Your task to perform on an android device: Clear the shopping cart on newegg. Add "usb-a" to the cart on newegg, then select checkout. Image 0: 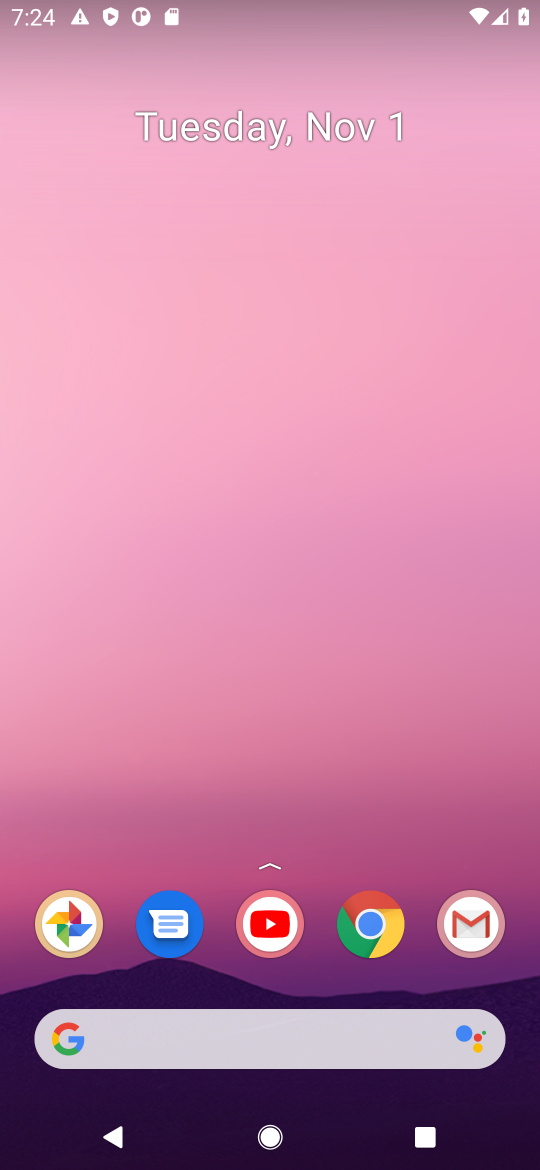
Step 0: click (118, 1033)
Your task to perform on an android device: Clear the shopping cart on newegg. Add "usb-a" to the cart on newegg, then select checkout. Image 1: 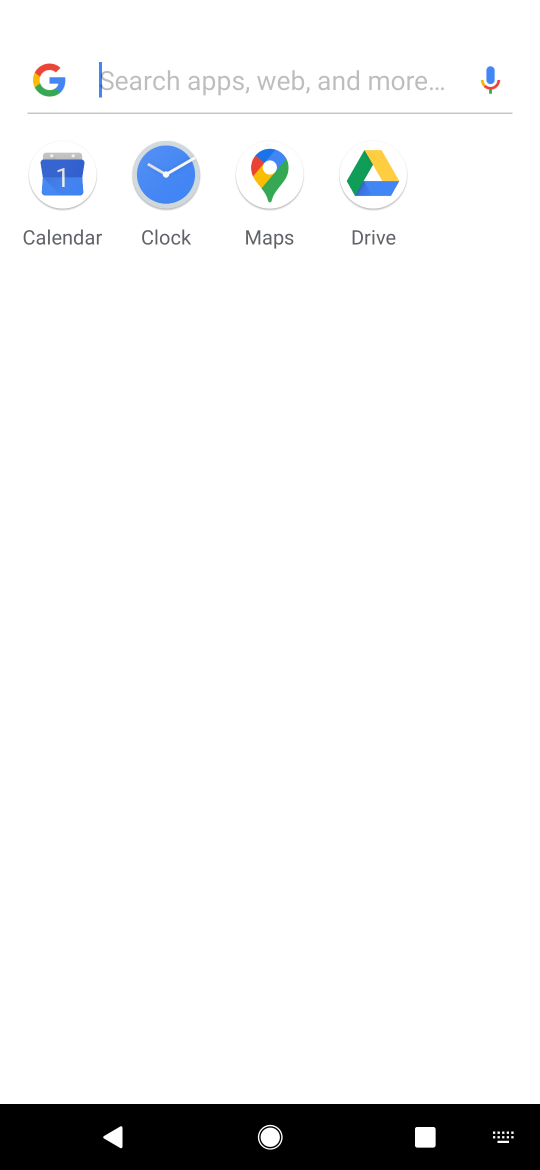
Step 1: type "newegg"
Your task to perform on an android device: Clear the shopping cart on newegg. Add "usb-a" to the cart on newegg, then select checkout. Image 2: 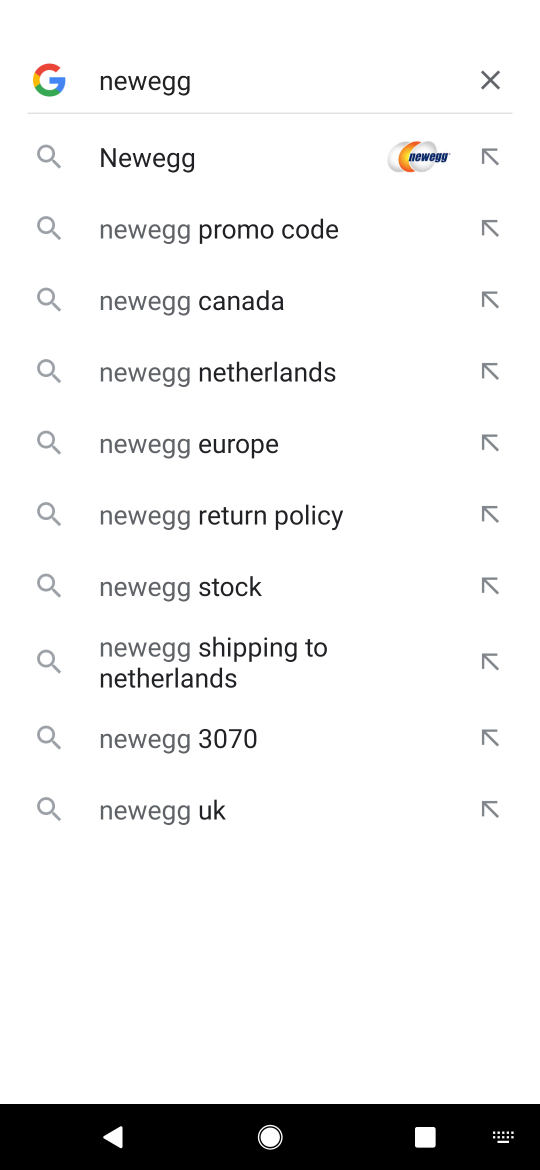
Step 2: press enter
Your task to perform on an android device: Clear the shopping cart on newegg. Add "usb-a" to the cart on newegg, then select checkout. Image 3: 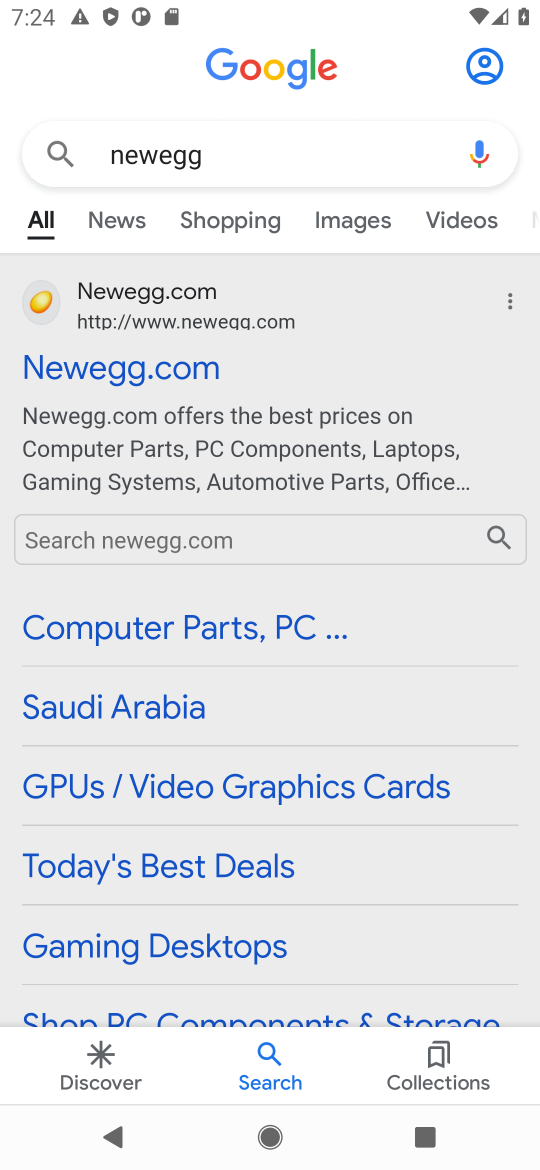
Step 3: click (148, 374)
Your task to perform on an android device: Clear the shopping cart on newegg. Add "usb-a" to the cart on newegg, then select checkout. Image 4: 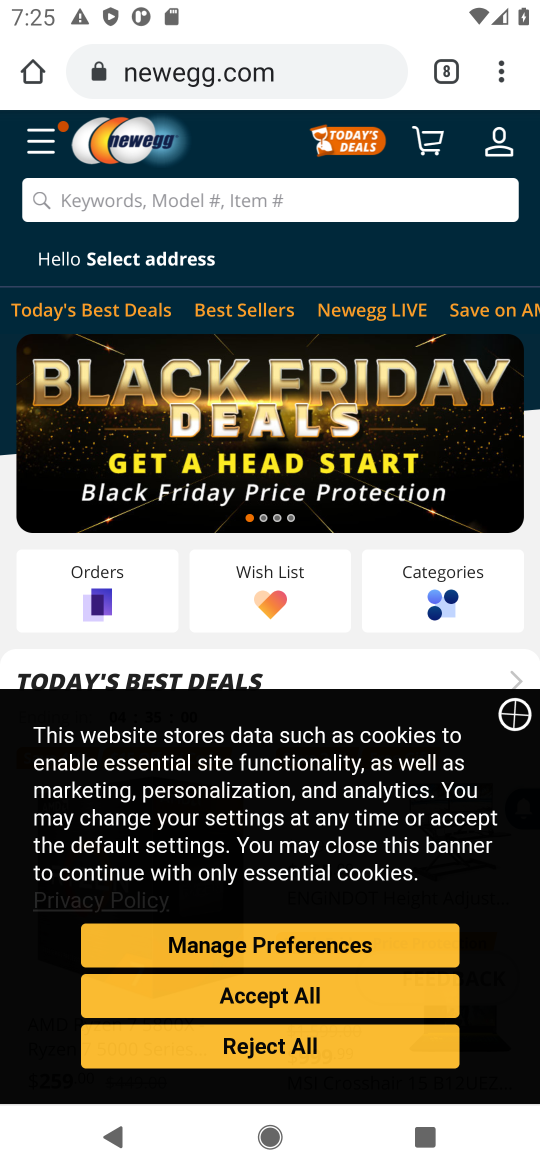
Step 4: click (436, 139)
Your task to perform on an android device: Clear the shopping cart on newegg. Add "usb-a" to the cart on newegg, then select checkout. Image 5: 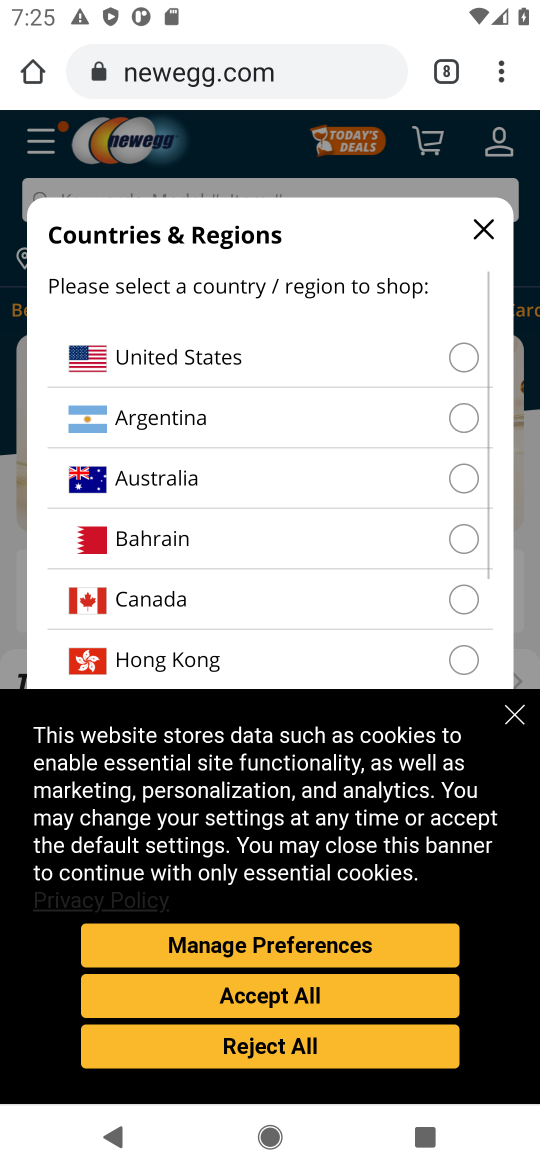
Step 5: click (347, 984)
Your task to perform on an android device: Clear the shopping cart on newegg. Add "usb-a" to the cart on newegg, then select checkout. Image 6: 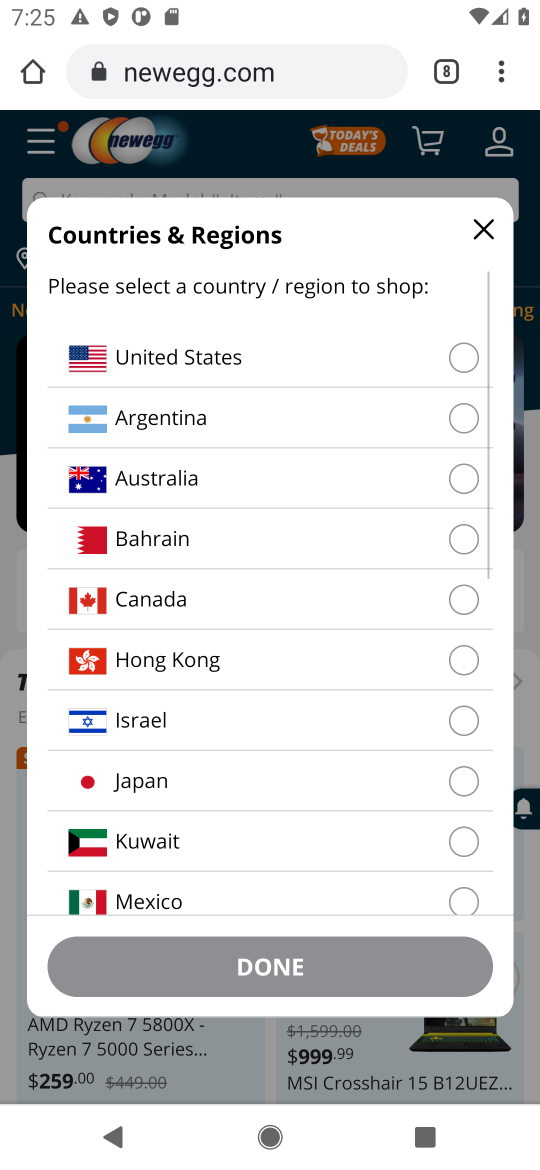
Step 6: click (486, 224)
Your task to perform on an android device: Clear the shopping cart on newegg. Add "usb-a" to the cart on newegg, then select checkout. Image 7: 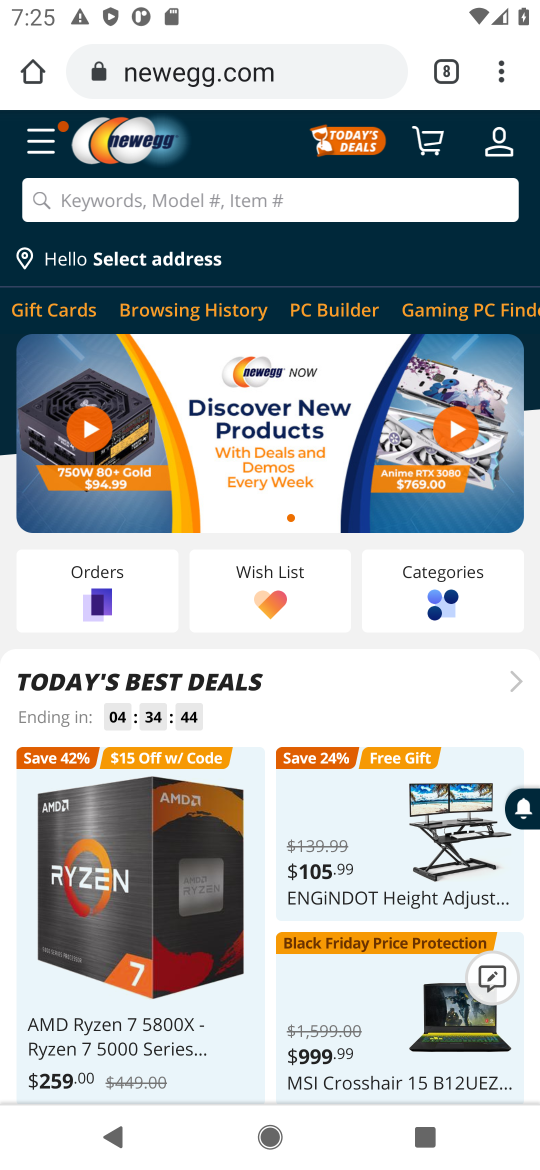
Step 7: click (265, 196)
Your task to perform on an android device: Clear the shopping cart on newegg. Add "usb-a" to the cart on newegg, then select checkout. Image 8: 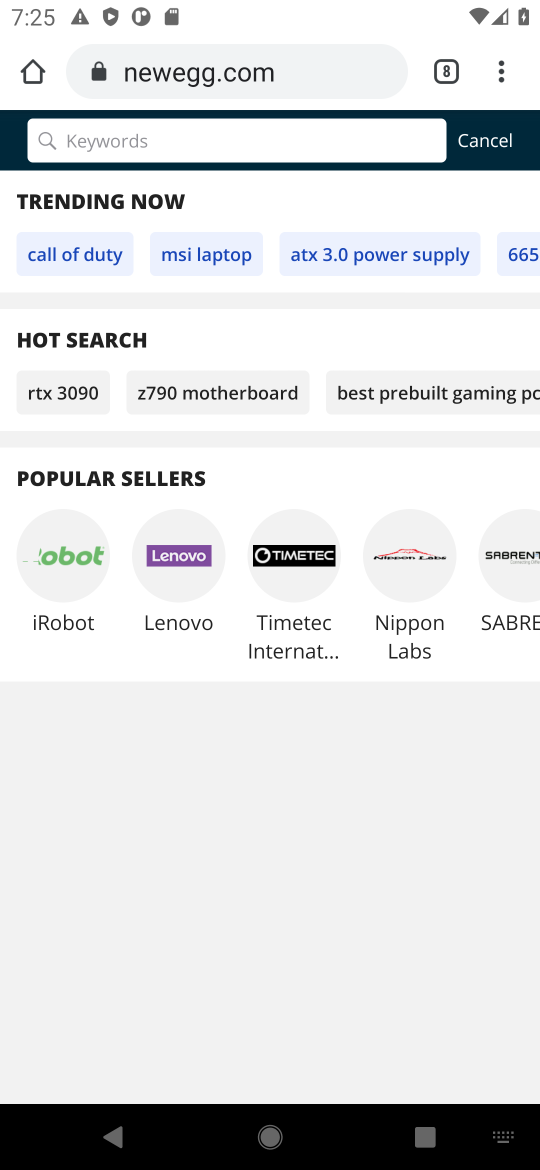
Step 8: type "usb a"
Your task to perform on an android device: Clear the shopping cart on newegg. Add "usb-a" to the cart on newegg, then select checkout. Image 9: 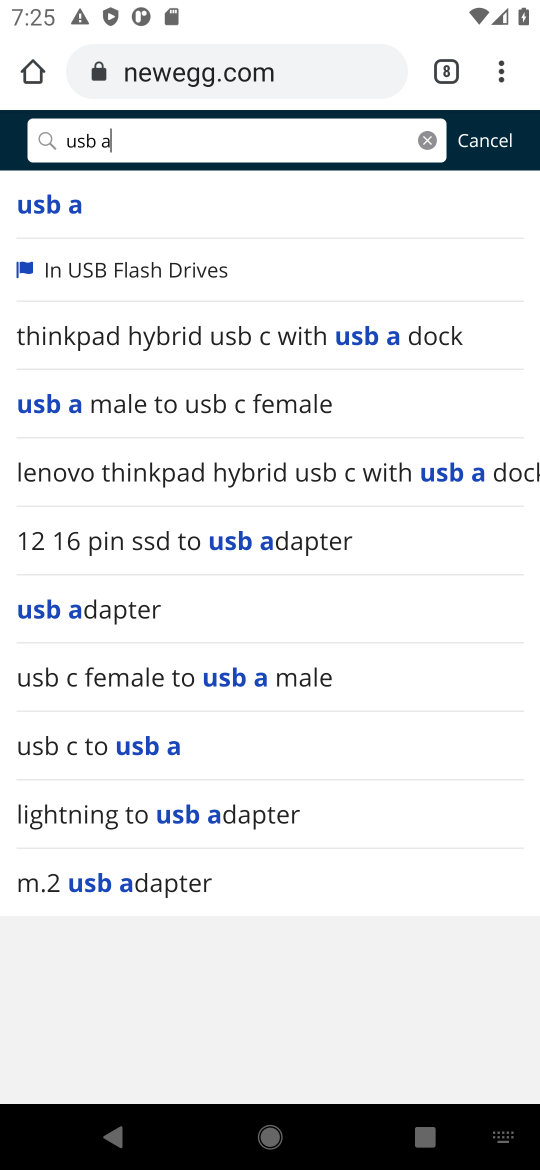
Step 9: click (80, 214)
Your task to perform on an android device: Clear the shopping cart on newegg. Add "usb-a" to the cart on newegg, then select checkout. Image 10: 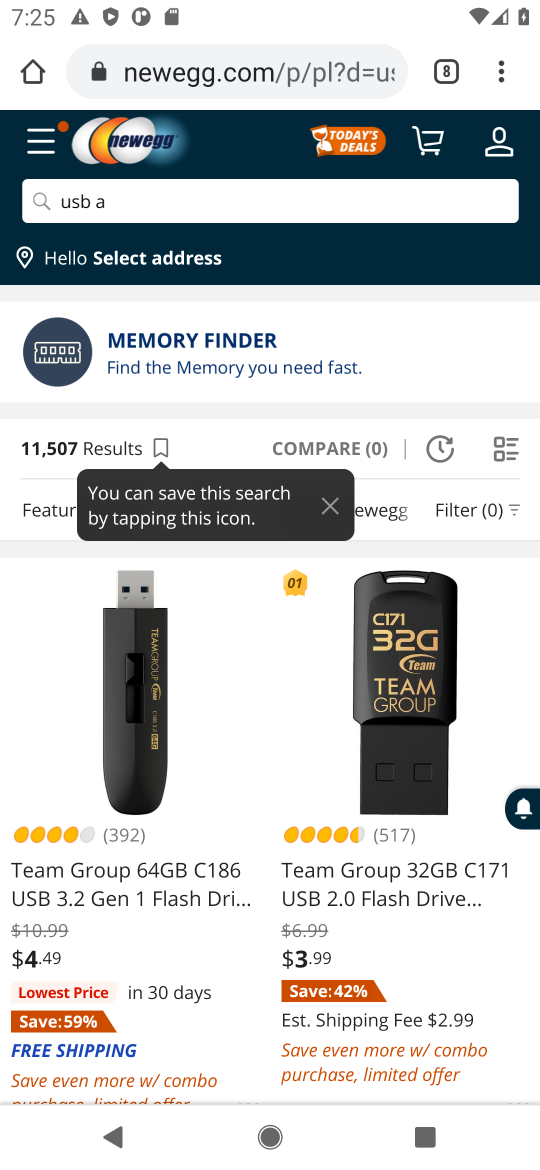
Step 10: drag from (418, 953) to (383, 724)
Your task to perform on an android device: Clear the shopping cart on newegg. Add "usb-a" to the cart on newegg, then select checkout. Image 11: 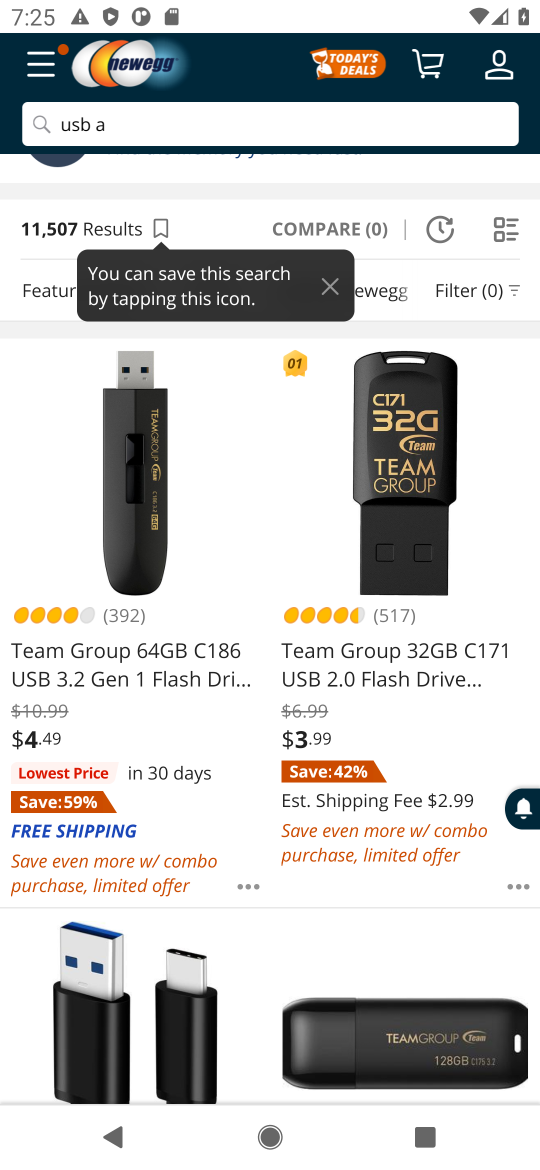
Step 11: drag from (289, 890) to (295, 656)
Your task to perform on an android device: Clear the shopping cart on newegg. Add "usb-a" to the cart on newegg, then select checkout. Image 12: 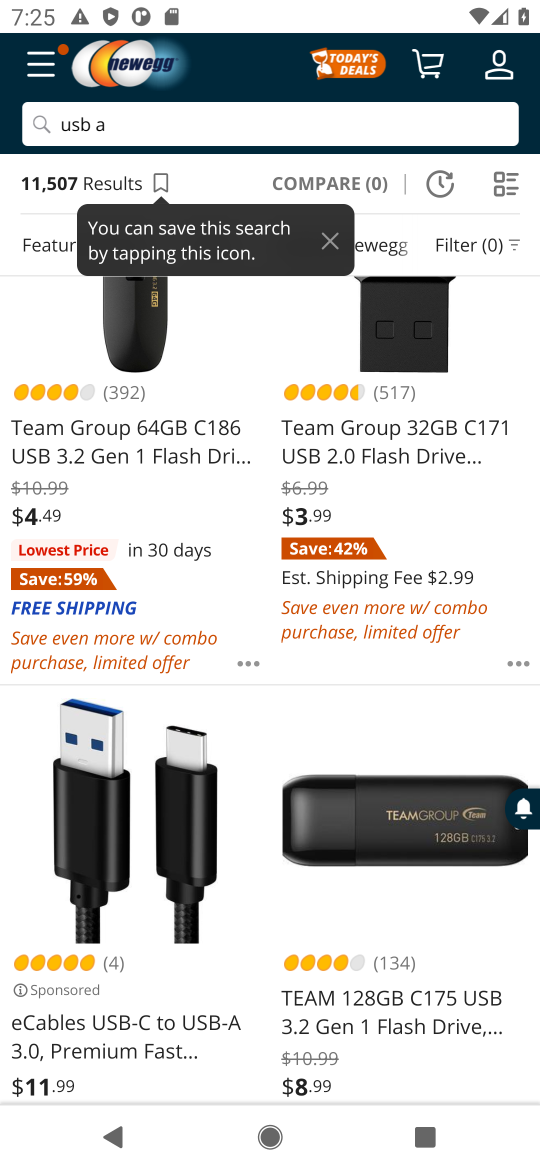
Step 12: click (117, 1013)
Your task to perform on an android device: Clear the shopping cart on newegg. Add "usb-a" to the cart on newegg, then select checkout. Image 13: 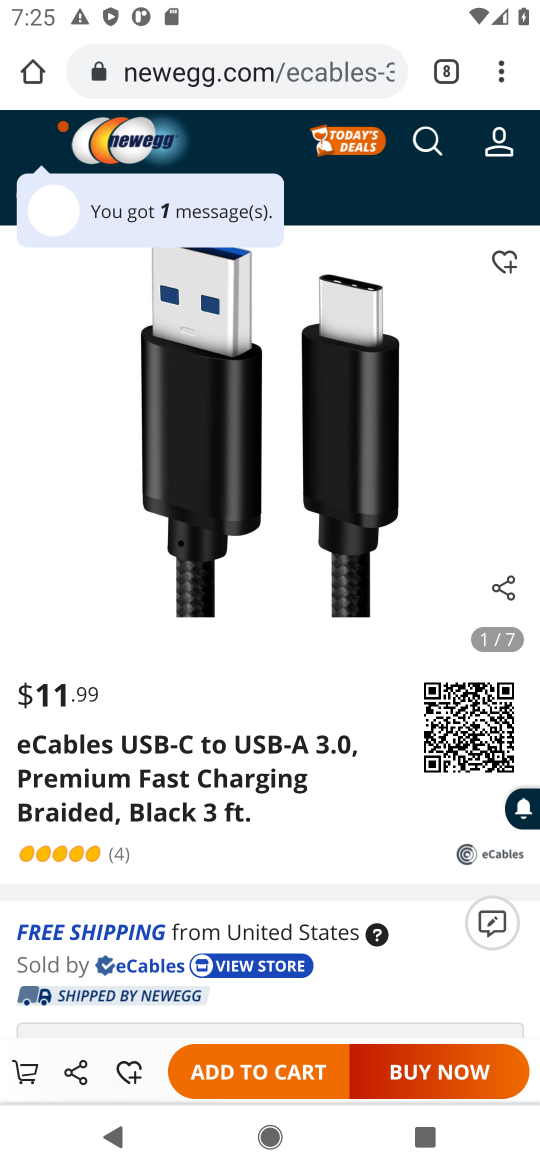
Step 13: click (277, 1070)
Your task to perform on an android device: Clear the shopping cart on newegg. Add "usb-a" to the cart on newegg, then select checkout. Image 14: 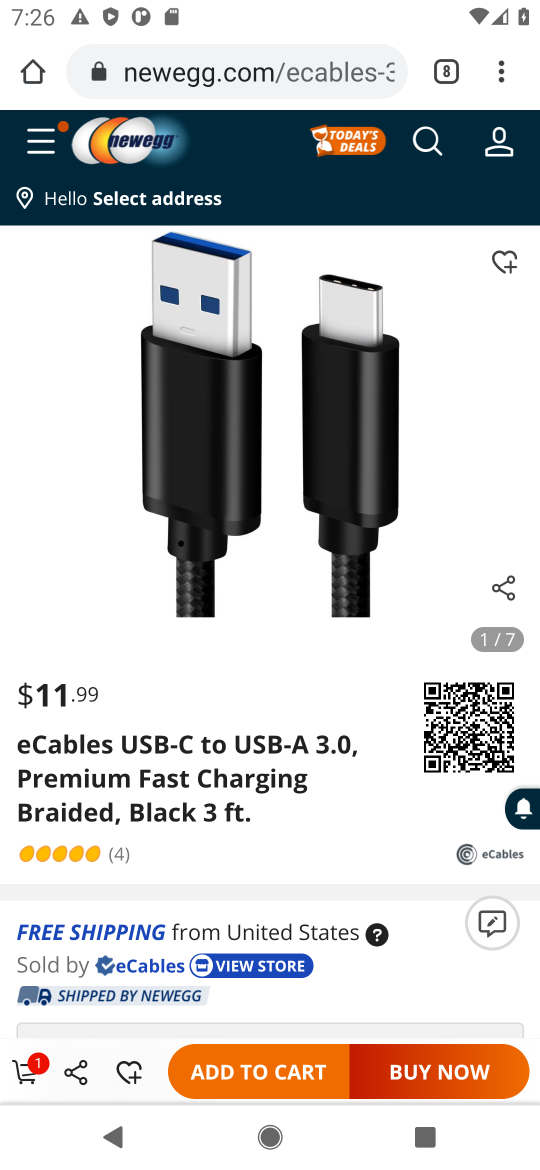
Step 14: click (32, 1072)
Your task to perform on an android device: Clear the shopping cart on newegg. Add "usb-a" to the cart on newegg, then select checkout. Image 15: 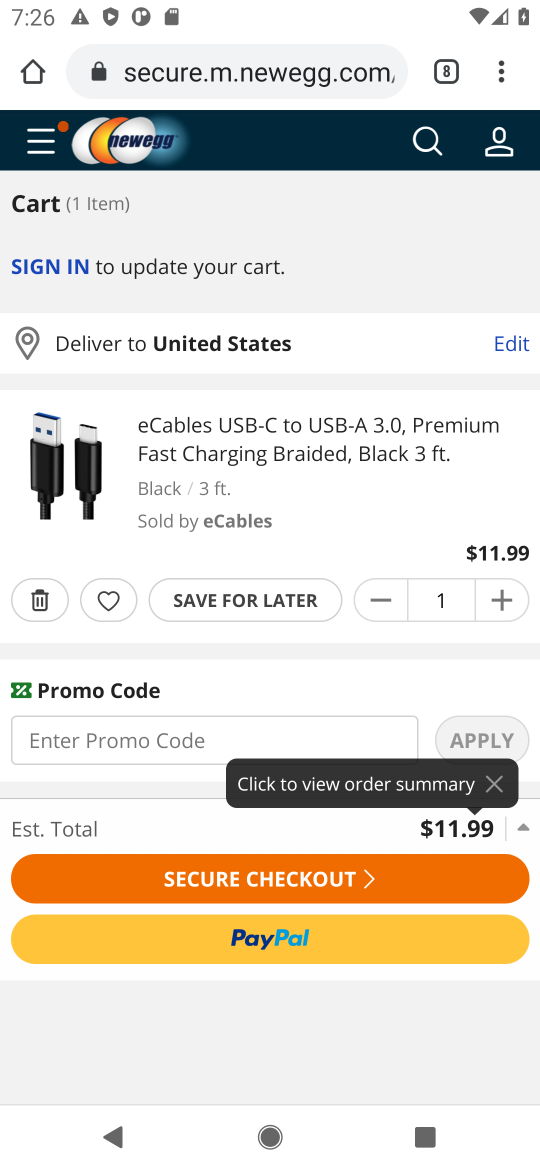
Step 15: click (297, 878)
Your task to perform on an android device: Clear the shopping cart on newegg. Add "usb-a" to the cart on newegg, then select checkout. Image 16: 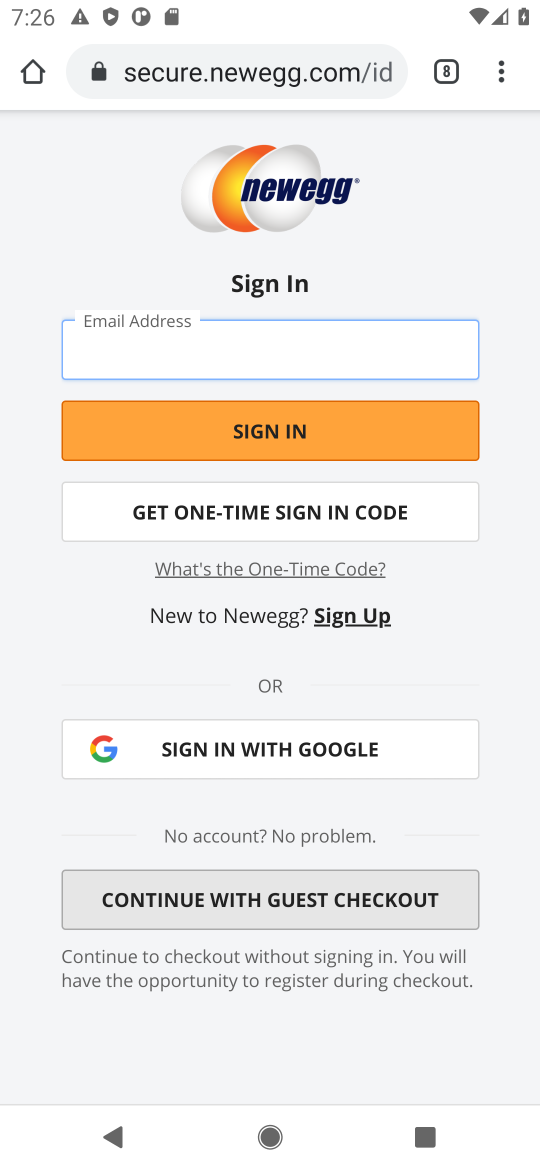
Step 16: task complete